Your task to perform on an android device: Search for "dell xps" on ebay.com, select the first entry, add it to the cart, then select checkout. Image 0: 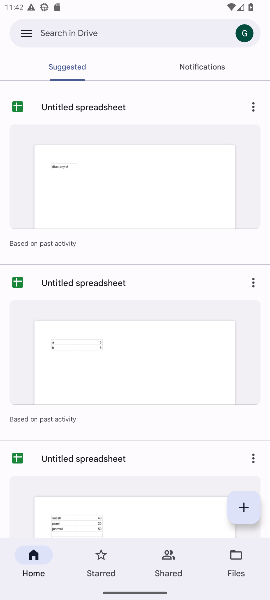
Step 0: press home button
Your task to perform on an android device: Search for "dell xps" on ebay.com, select the first entry, add it to the cart, then select checkout. Image 1: 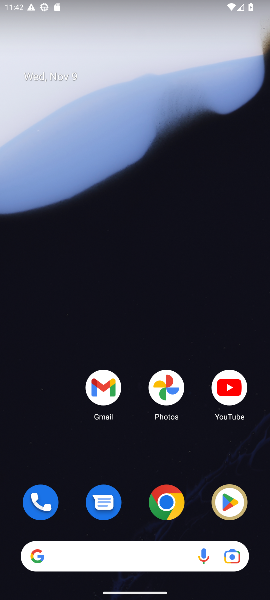
Step 1: drag from (131, 457) to (116, 16)
Your task to perform on an android device: Search for "dell xps" on ebay.com, select the first entry, add it to the cart, then select checkout. Image 2: 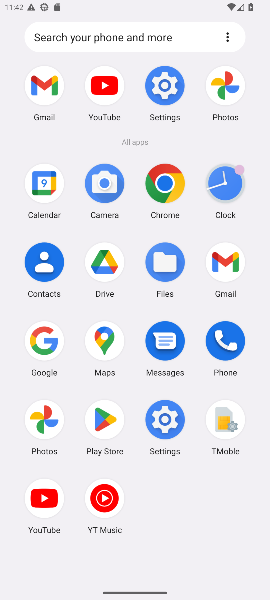
Step 2: click (167, 183)
Your task to perform on an android device: Search for "dell xps" on ebay.com, select the first entry, add it to the cart, then select checkout. Image 3: 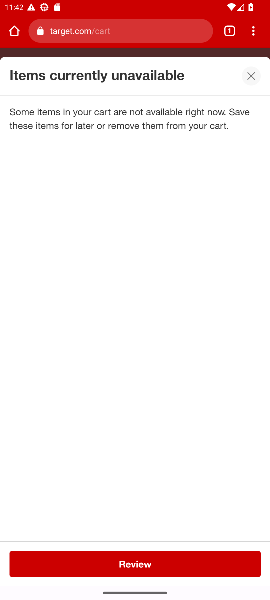
Step 3: click (120, 41)
Your task to perform on an android device: Search for "dell xps" on ebay.com, select the first entry, add it to the cart, then select checkout. Image 4: 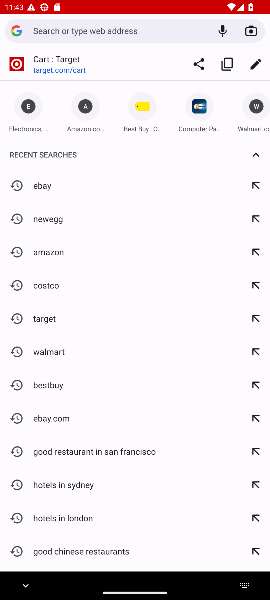
Step 4: type "ebay.com"
Your task to perform on an android device: Search for "dell xps" on ebay.com, select the first entry, add it to the cart, then select checkout. Image 5: 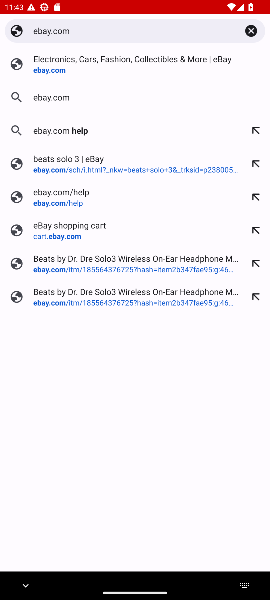
Step 5: press enter
Your task to perform on an android device: Search for "dell xps" on ebay.com, select the first entry, add it to the cart, then select checkout. Image 6: 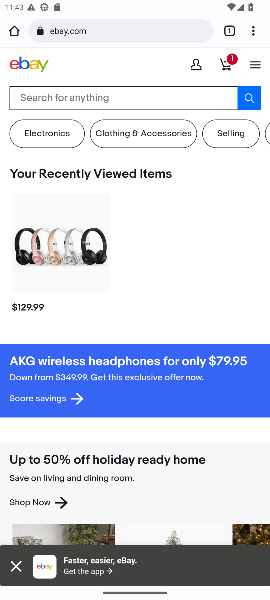
Step 6: click (156, 89)
Your task to perform on an android device: Search for "dell xps" on ebay.com, select the first entry, add it to the cart, then select checkout. Image 7: 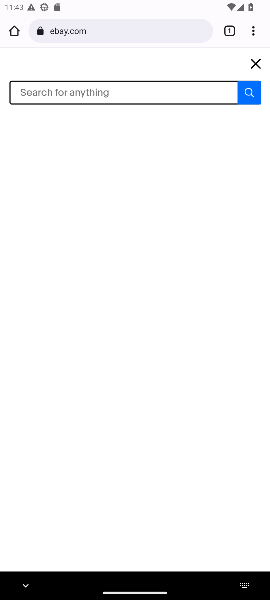
Step 7: type "dell xps"
Your task to perform on an android device: Search for "dell xps" on ebay.com, select the first entry, add it to the cart, then select checkout. Image 8: 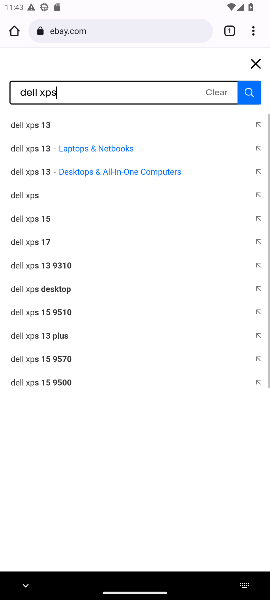
Step 8: press enter
Your task to perform on an android device: Search for "dell xps" on ebay.com, select the first entry, add it to the cart, then select checkout. Image 9: 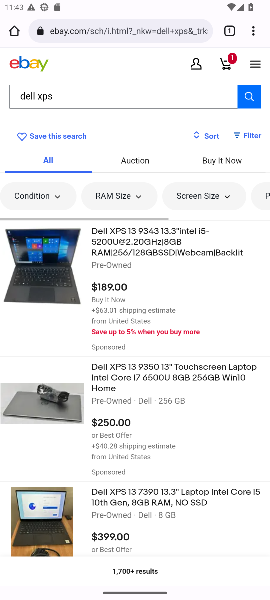
Step 9: click (143, 246)
Your task to perform on an android device: Search for "dell xps" on ebay.com, select the first entry, add it to the cart, then select checkout. Image 10: 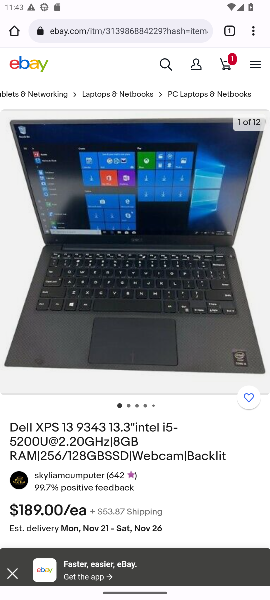
Step 10: drag from (172, 452) to (160, 105)
Your task to perform on an android device: Search for "dell xps" on ebay.com, select the first entry, add it to the cart, then select checkout. Image 11: 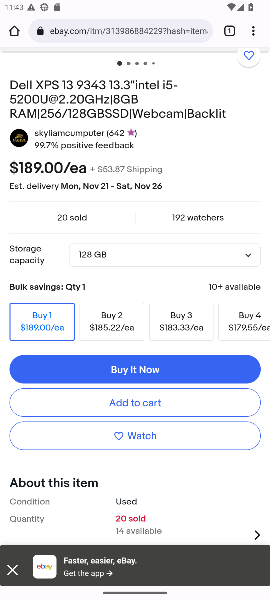
Step 11: click (168, 399)
Your task to perform on an android device: Search for "dell xps" on ebay.com, select the first entry, add it to the cart, then select checkout. Image 12: 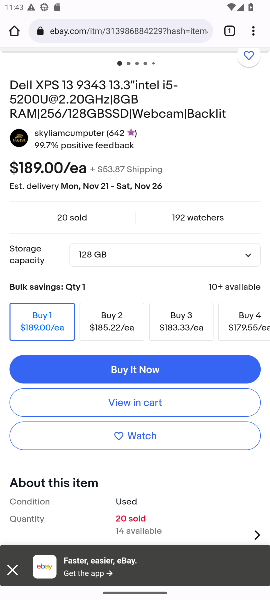
Step 12: click (168, 399)
Your task to perform on an android device: Search for "dell xps" on ebay.com, select the first entry, add it to the cart, then select checkout. Image 13: 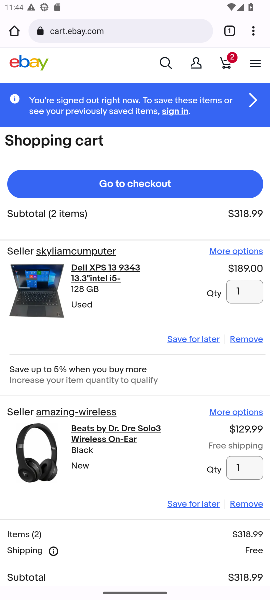
Step 13: click (164, 186)
Your task to perform on an android device: Search for "dell xps" on ebay.com, select the first entry, add it to the cart, then select checkout. Image 14: 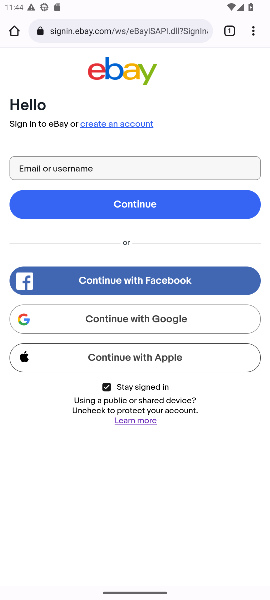
Step 14: task complete